Your task to perform on an android device: Clear the cart on costco.com. Search for "bose soundlink" on costco.com, select the first entry, and add it to the cart. Image 0: 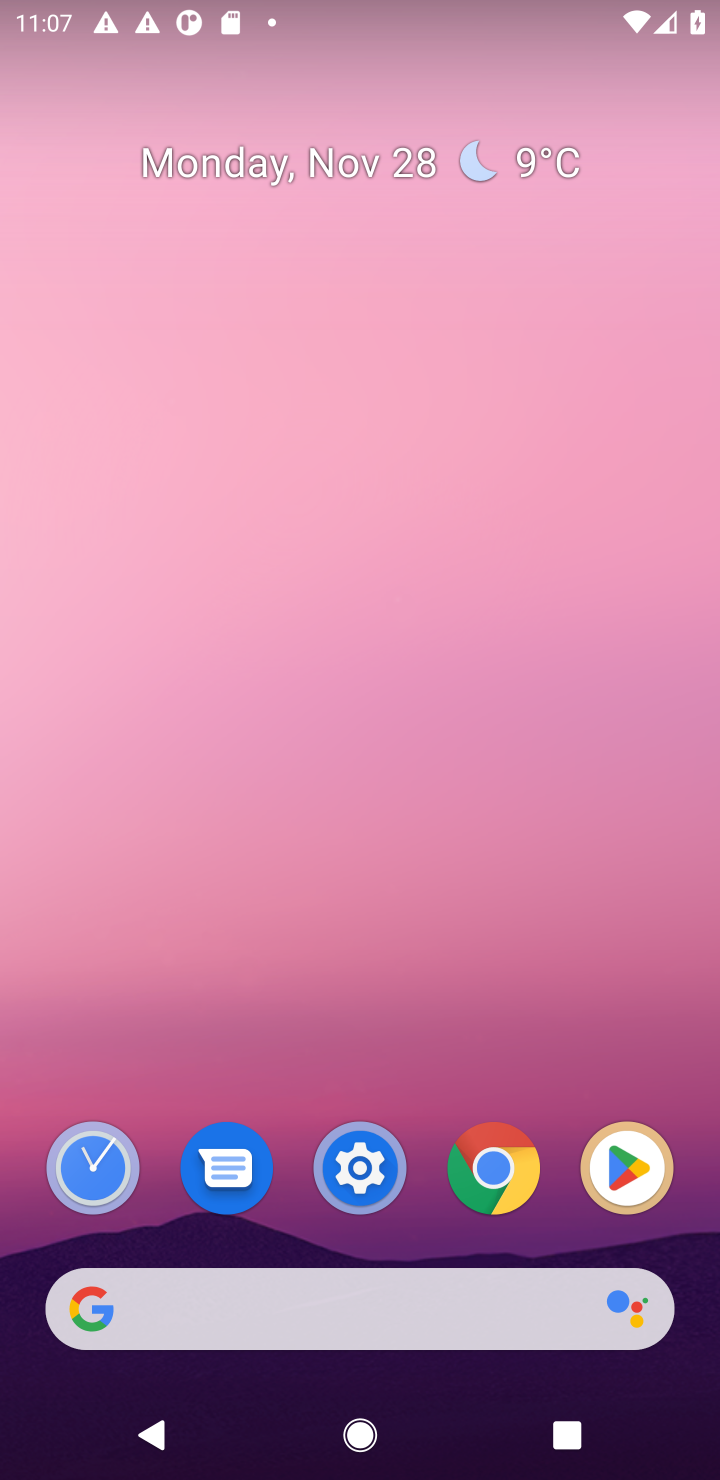
Step 0: click (372, 1289)
Your task to perform on an android device: Clear the cart on costco.com. Search for "bose soundlink" on costco.com, select the first entry, and add it to the cart. Image 1: 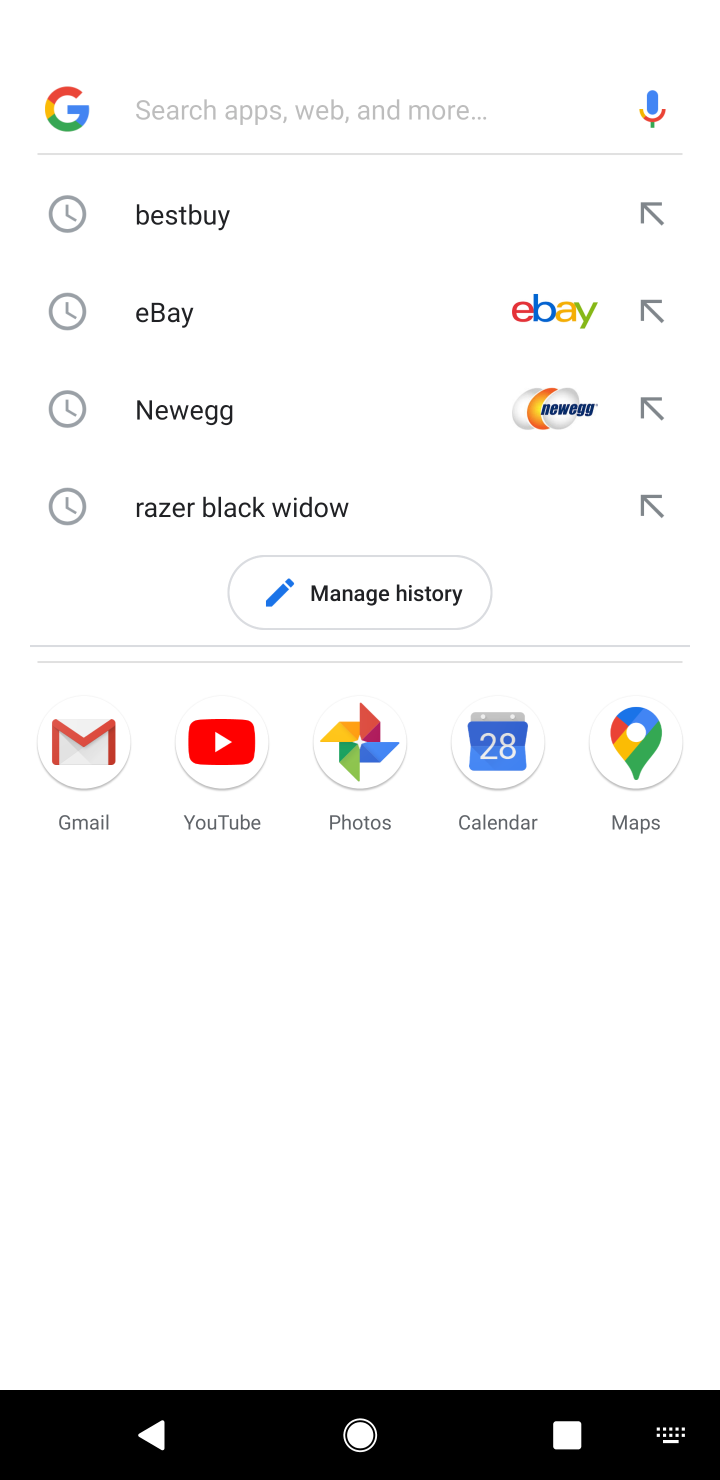
Step 1: type "costco.com"
Your task to perform on an android device: Clear the cart on costco.com. Search for "bose soundlink" on costco.com, select the first entry, and add it to the cart. Image 2: 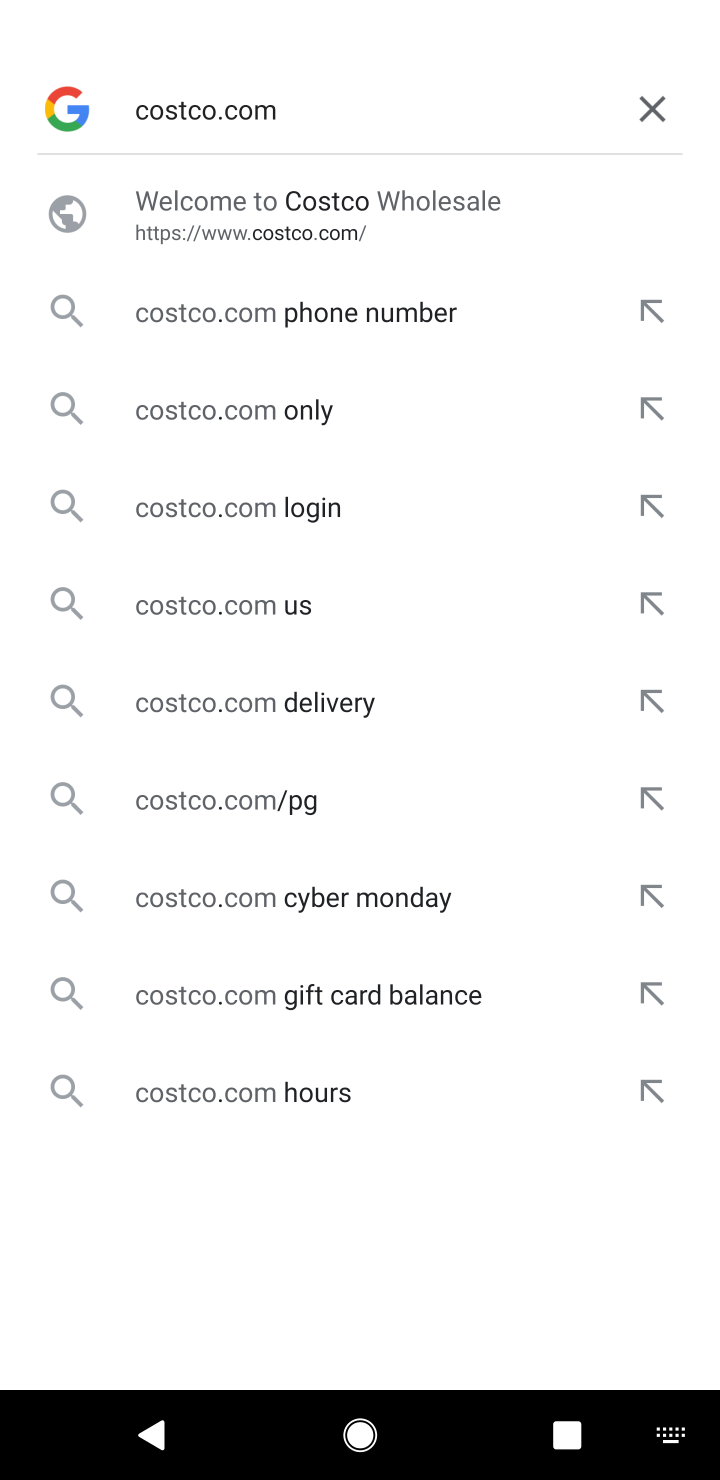
Step 2: click (159, 189)
Your task to perform on an android device: Clear the cart on costco.com. Search for "bose soundlink" on costco.com, select the first entry, and add it to the cart. Image 3: 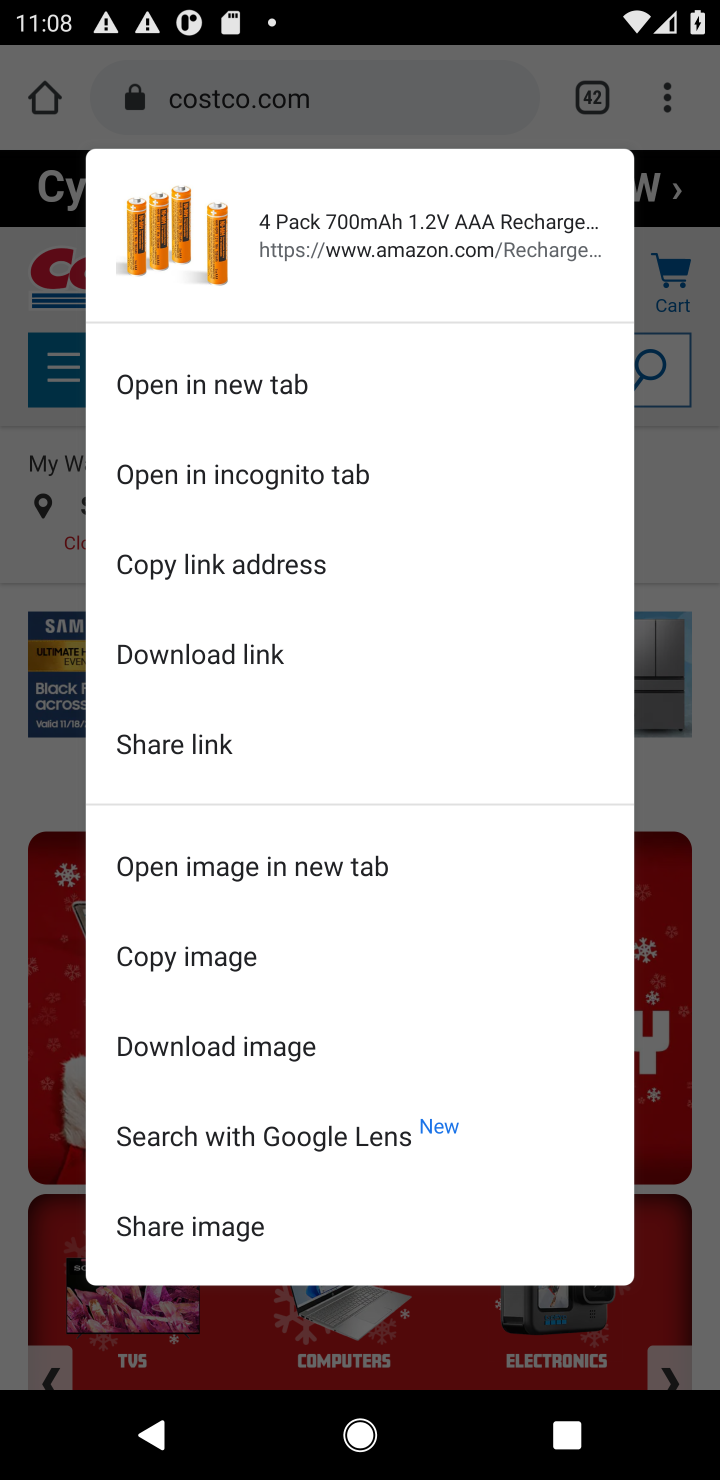
Step 3: task complete